Your task to perform on an android device: turn off javascript in the chrome app Image 0: 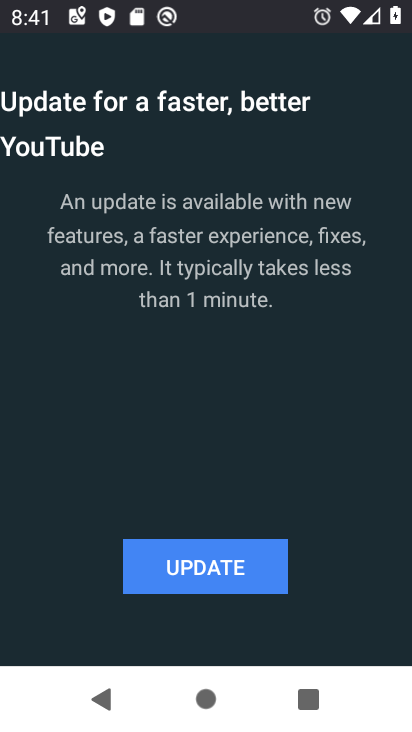
Step 0: press home button
Your task to perform on an android device: turn off javascript in the chrome app Image 1: 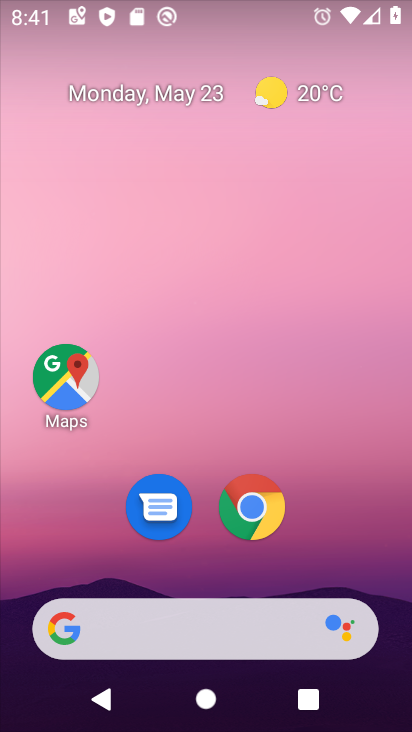
Step 1: click (261, 512)
Your task to perform on an android device: turn off javascript in the chrome app Image 2: 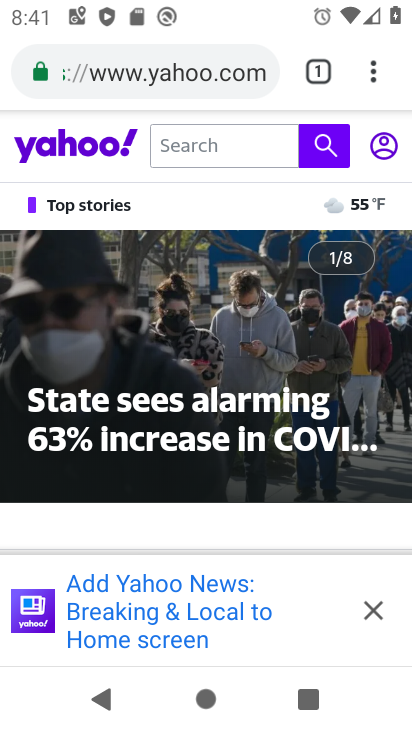
Step 2: drag from (376, 73) to (136, 514)
Your task to perform on an android device: turn off javascript in the chrome app Image 3: 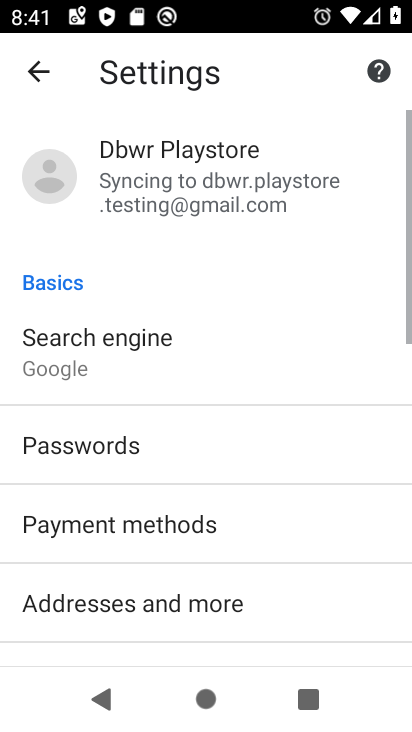
Step 3: drag from (266, 598) to (218, 71)
Your task to perform on an android device: turn off javascript in the chrome app Image 4: 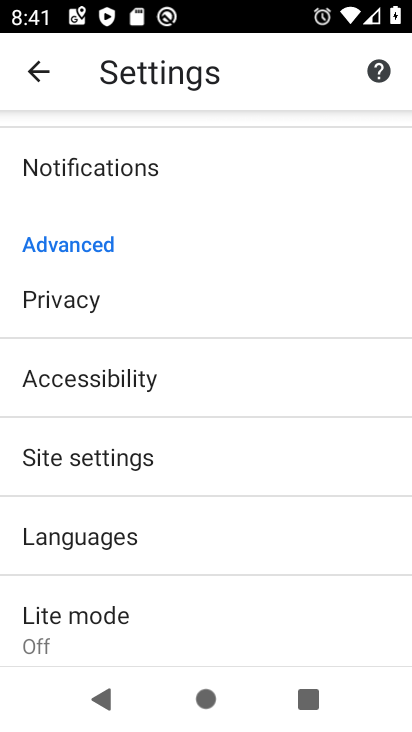
Step 4: click (98, 450)
Your task to perform on an android device: turn off javascript in the chrome app Image 5: 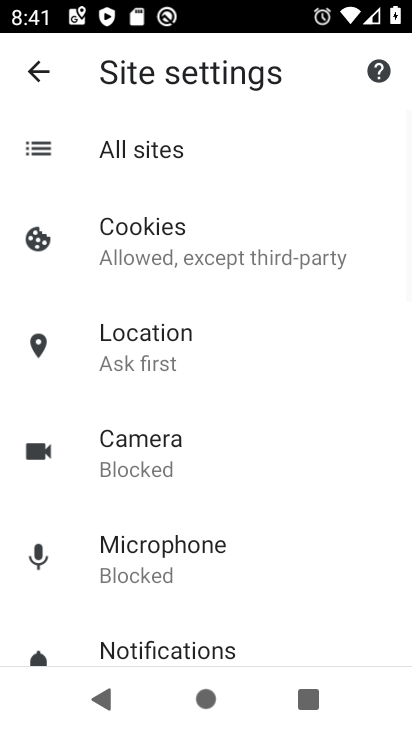
Step 5: drag from (248, 564) to (243, 342)
Your task to perform on an android device: turn off javascript in the chrome app Image 6: 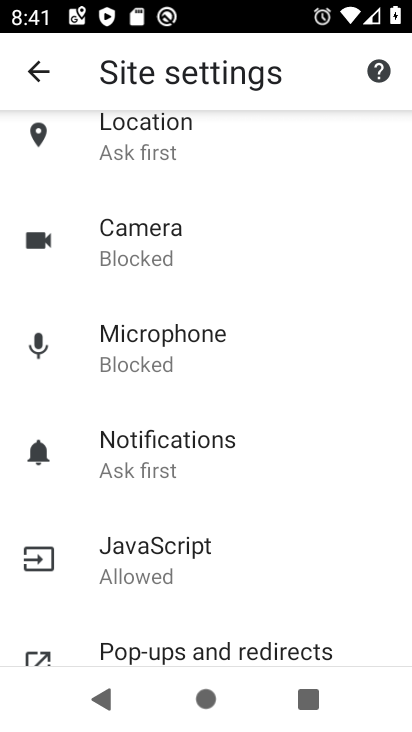
Step 6: click (156, 561)
Your task to perform on an android device: turn off javascript in the chrome app Image 7: 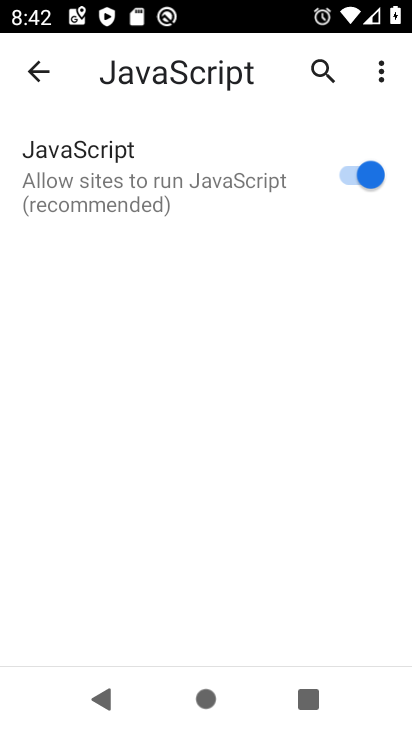
Step 7: click (360, 175)
Your task to perform on an android device: turn off javascript in the chrome app Image 8: 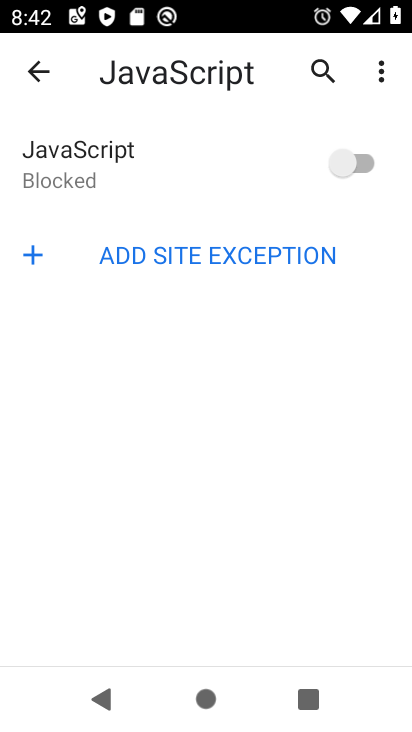
Step 8: task complete